Your task to perform on an android device: allow cookies in the chrome app Image 0: 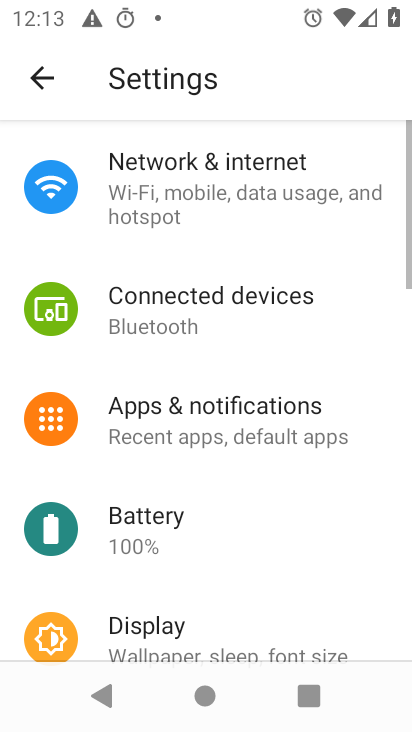
Step 0: press back button
Your task to perform on an android device: allow cookies in the chrome app Image 1: 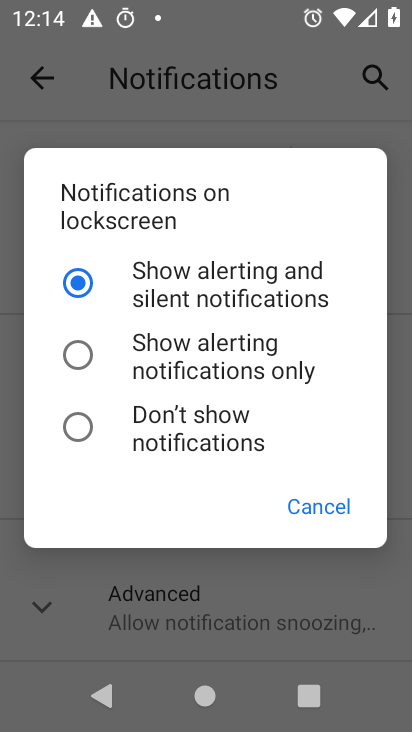
Step 1: click (323, 492)
Your task to perform on an android device: allow cookies in the chrome app Image 2: 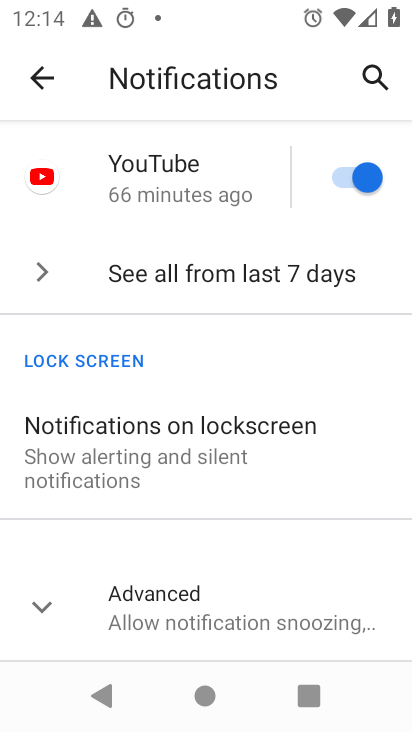
Step 2: press back button
Your task to perform on an android device: allow cookies in the chrome app Image 3: 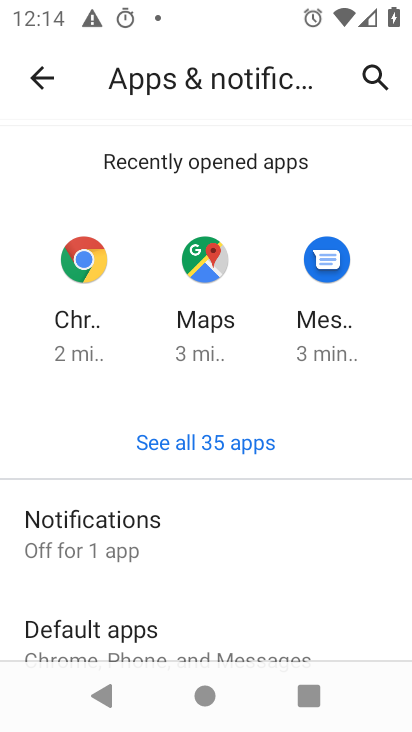
Step 3: press home button
Your task to perform on an android device: allow cookies in the chrome app Image 4: 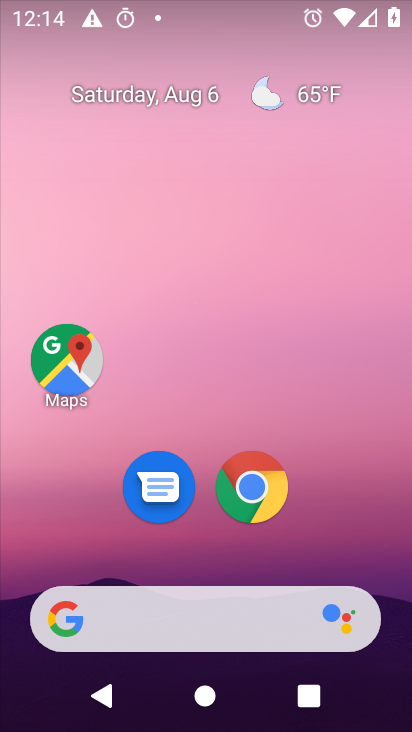
Step 4: click (233, 467)
Your task to perform on an android device: allow cookies in the chrome app Image 5: 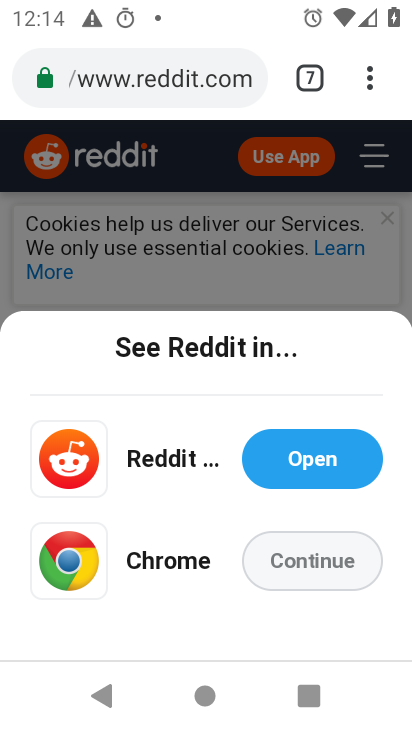
Step 5: click (369, 72)
Your task to perform on an android device: allow cookies in the chrome app Image 6: 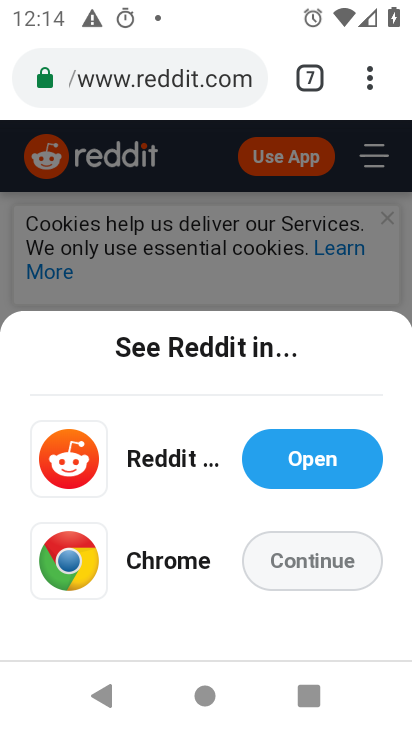
Step 6: drag from (365, 68) to (110, 549)
Your task to perform on an android device: allow cookies in the chrome app Image 7: 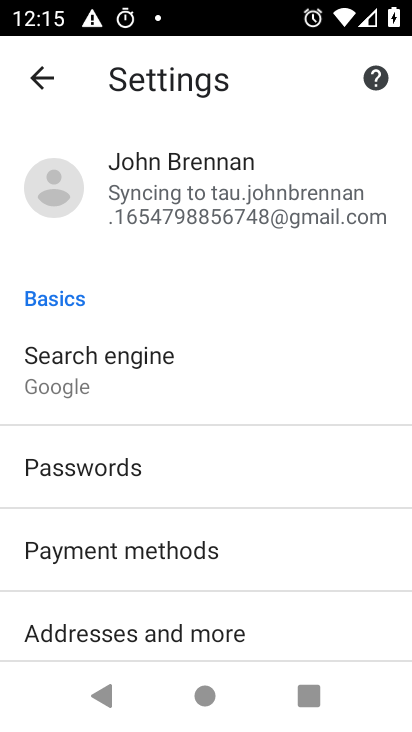
Step 7: drag from (187, 633) to (234, 135)
Your task to perform on an android device: allow cookies in the chrome app Image 8: 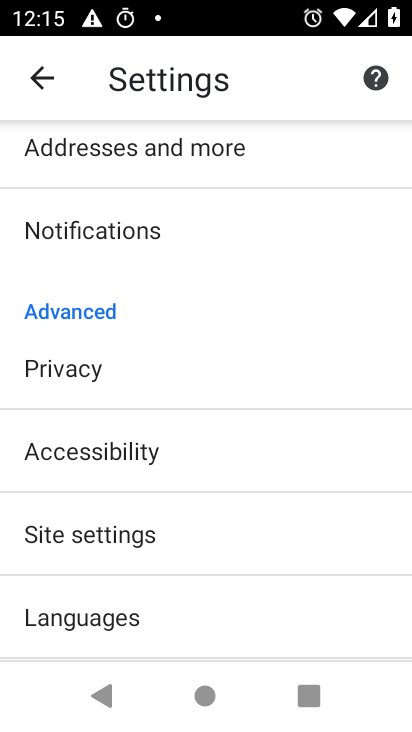
Step 8: click (86, 536)
Your task to perform on an android device: allow cookies in the chrome app Image 9: 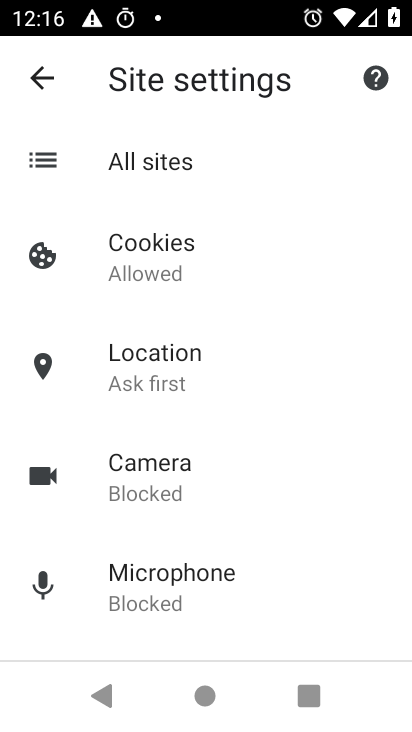
Step 9: click (194, 247)
Your task to perform on an android device: allow cookies in the chrome app Image 10: 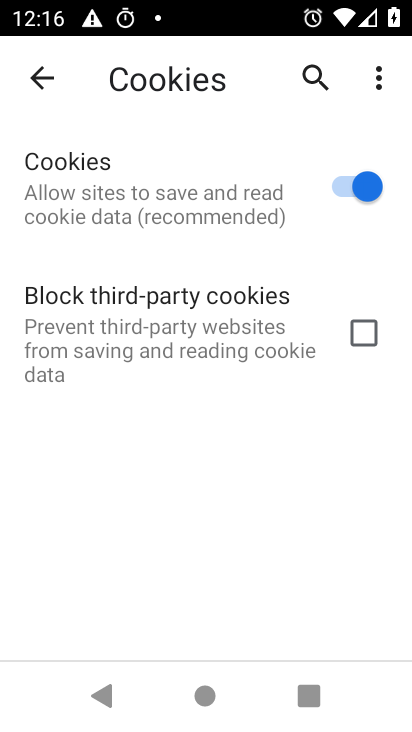
Step 10: task complete